Your task to perform on an android device: Clear all items from cart on amazon. Search for razer huntsman on amazon, select the first entry, add it to the cart, then select checkout. Image 0: 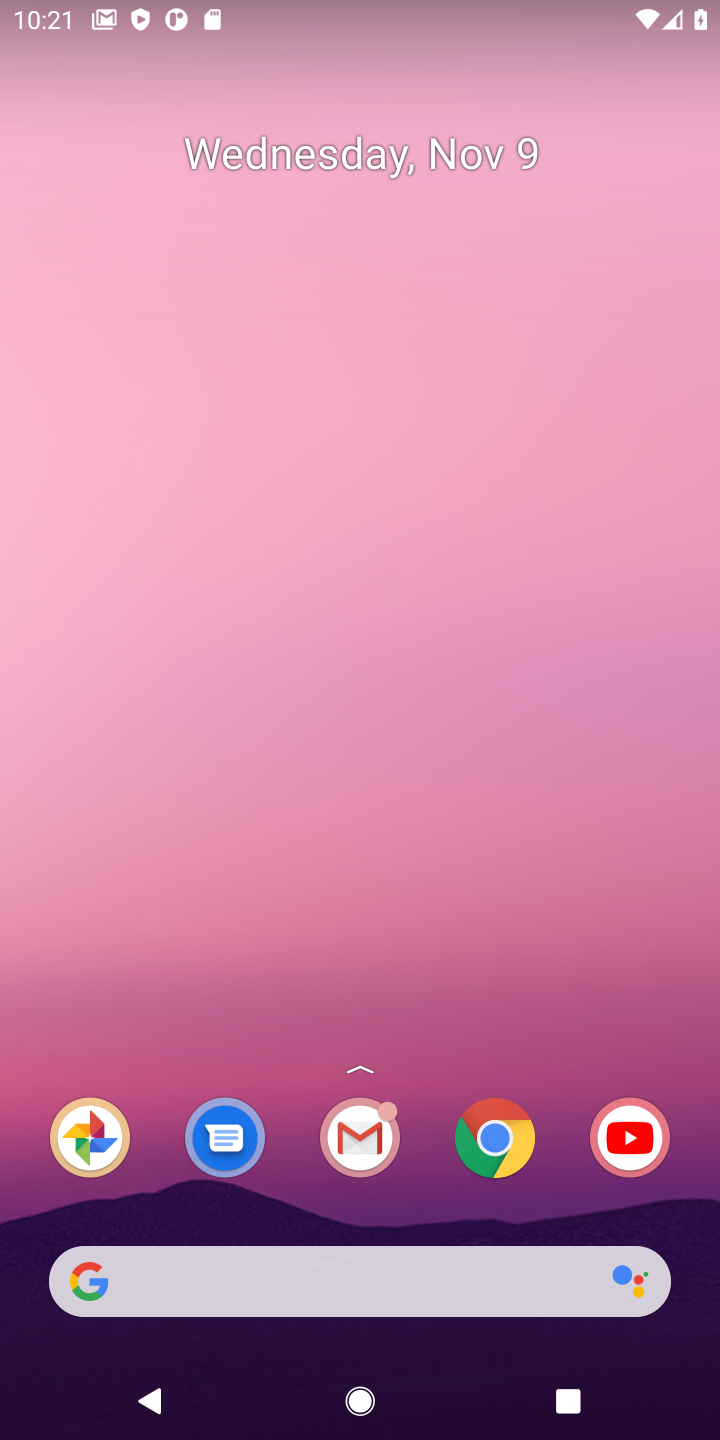
Step 0: drag from (378, 351) to (368, 31)
Your task to perform on an android device: Clear all items from cart on amazon. Search for razer huntsman on amazon, select the first entry, add it to the cart, then select checkout. Image 1: 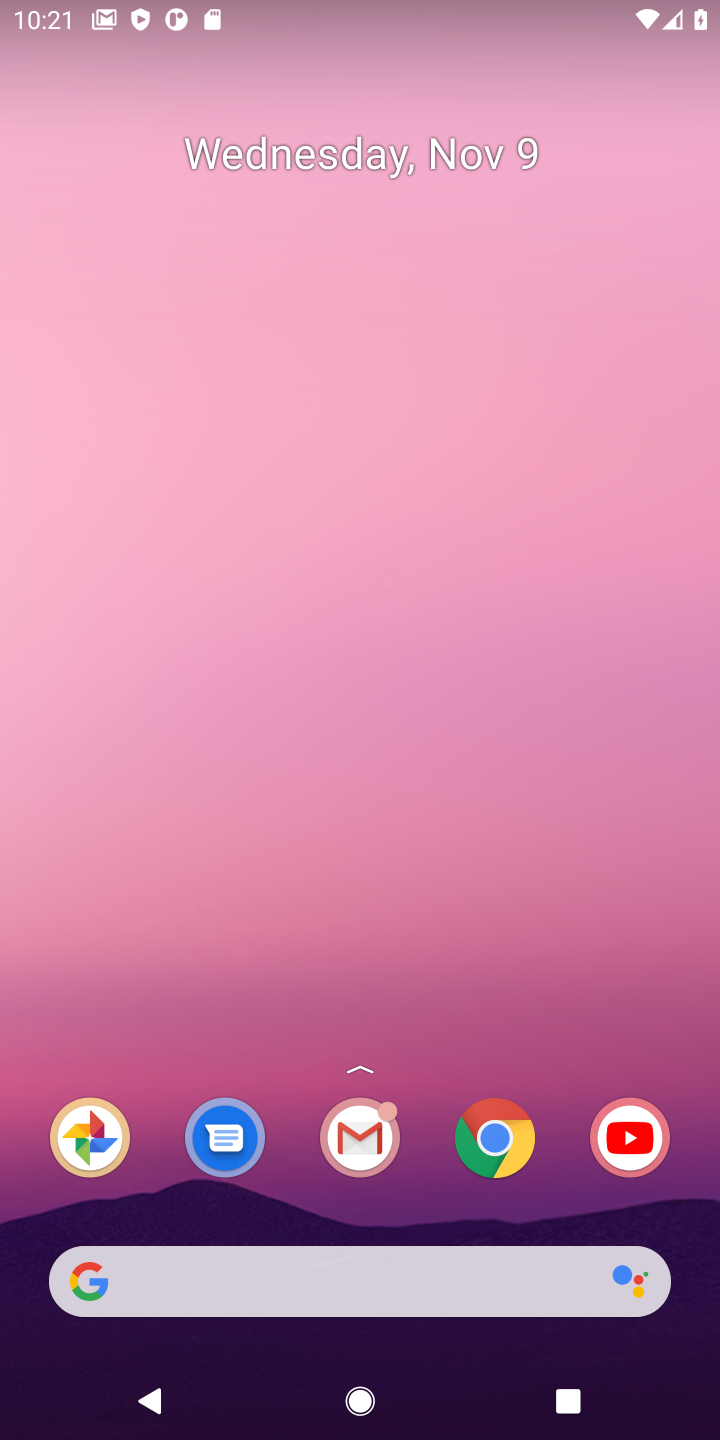
Step 1: drag from (425, 1212) to (363, 168)
Your task to perform on an android device: Clear all items from cart on amazon. Search for razer huntsman on amazon, select the first entry, add it to the cart, then select checkout. Image 2: 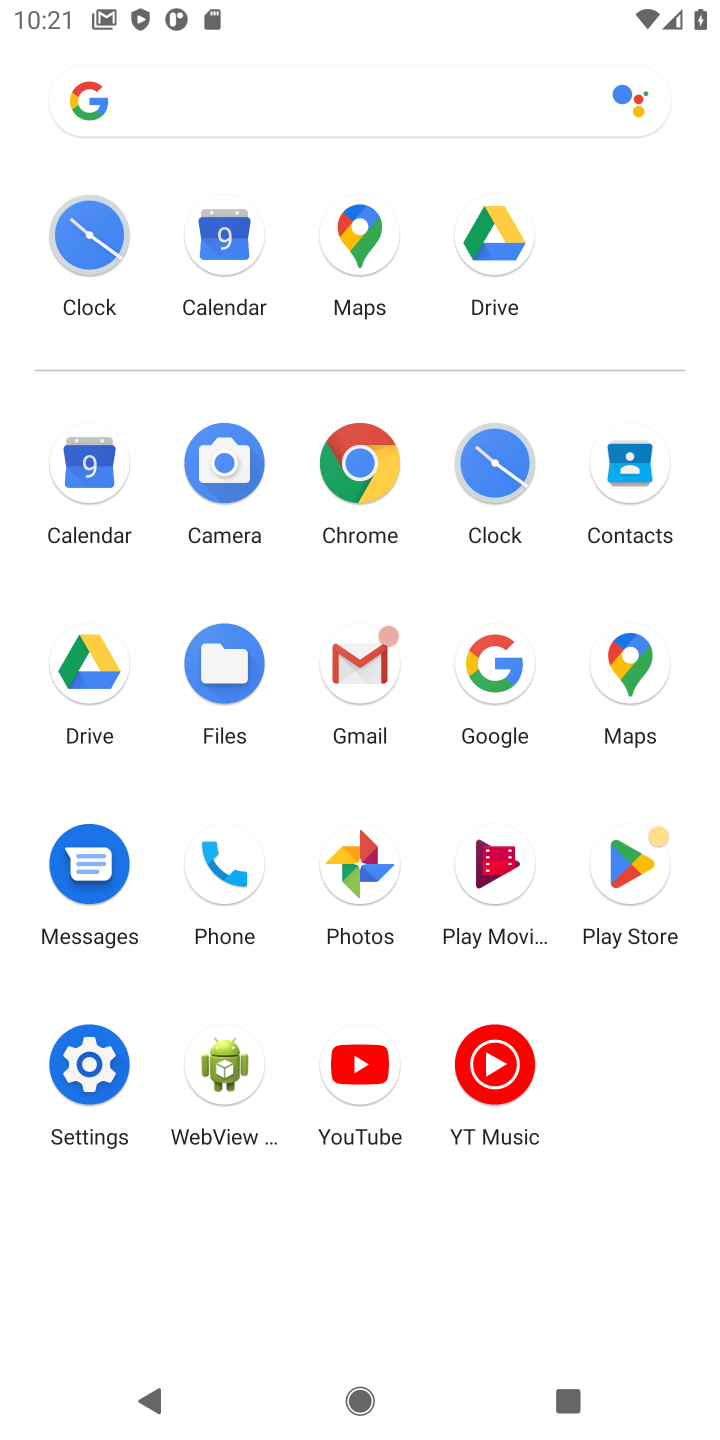
Step 2: click (359, 463)
Your task to perform on an android device: Clear all items from cart on amazon. Search for razer huntsman on amazon, select the first entry, add it to the cart, then select checkout. Image 3: 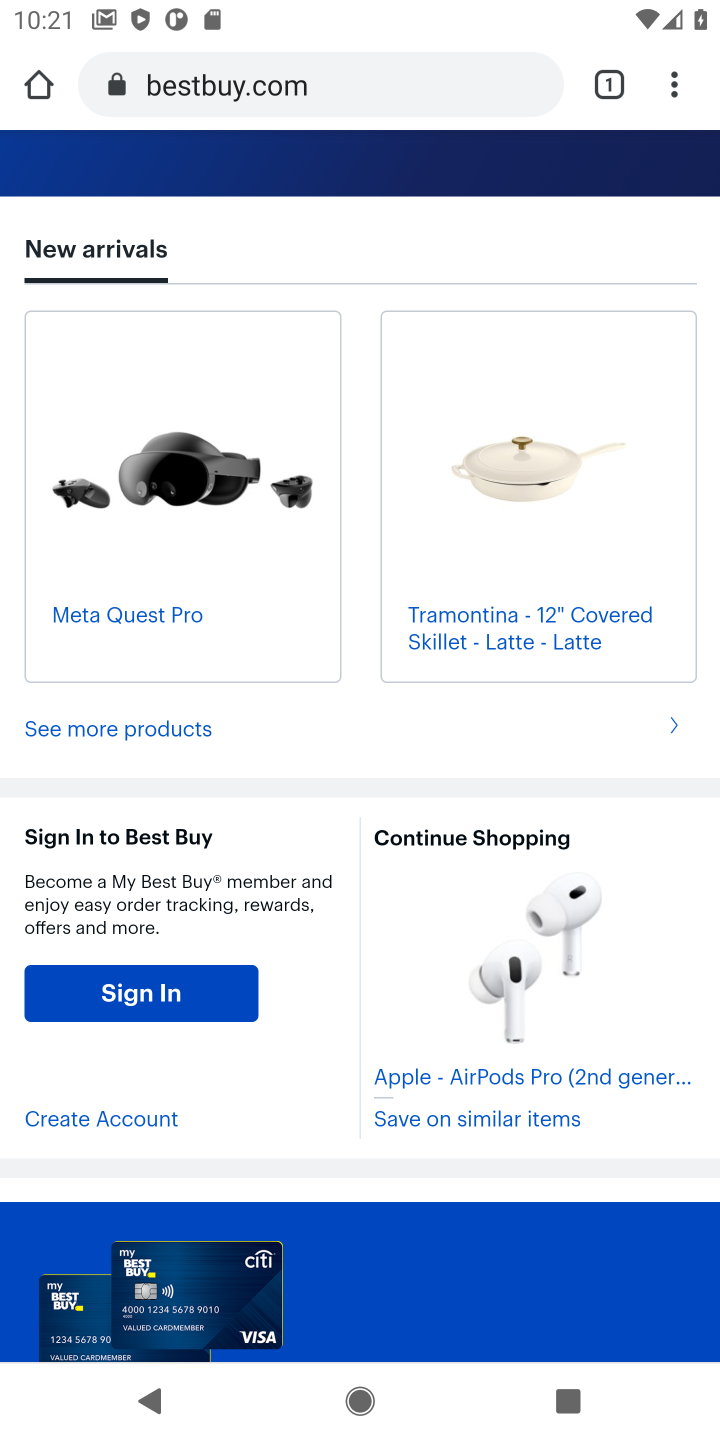
Step 3: click (411, 46)
Your task to perform on an android device: Clear all items from cart on amazon. Search for razer huntsman on amazon, select the first entry, add it to the cart, then select checkout. Image 4: 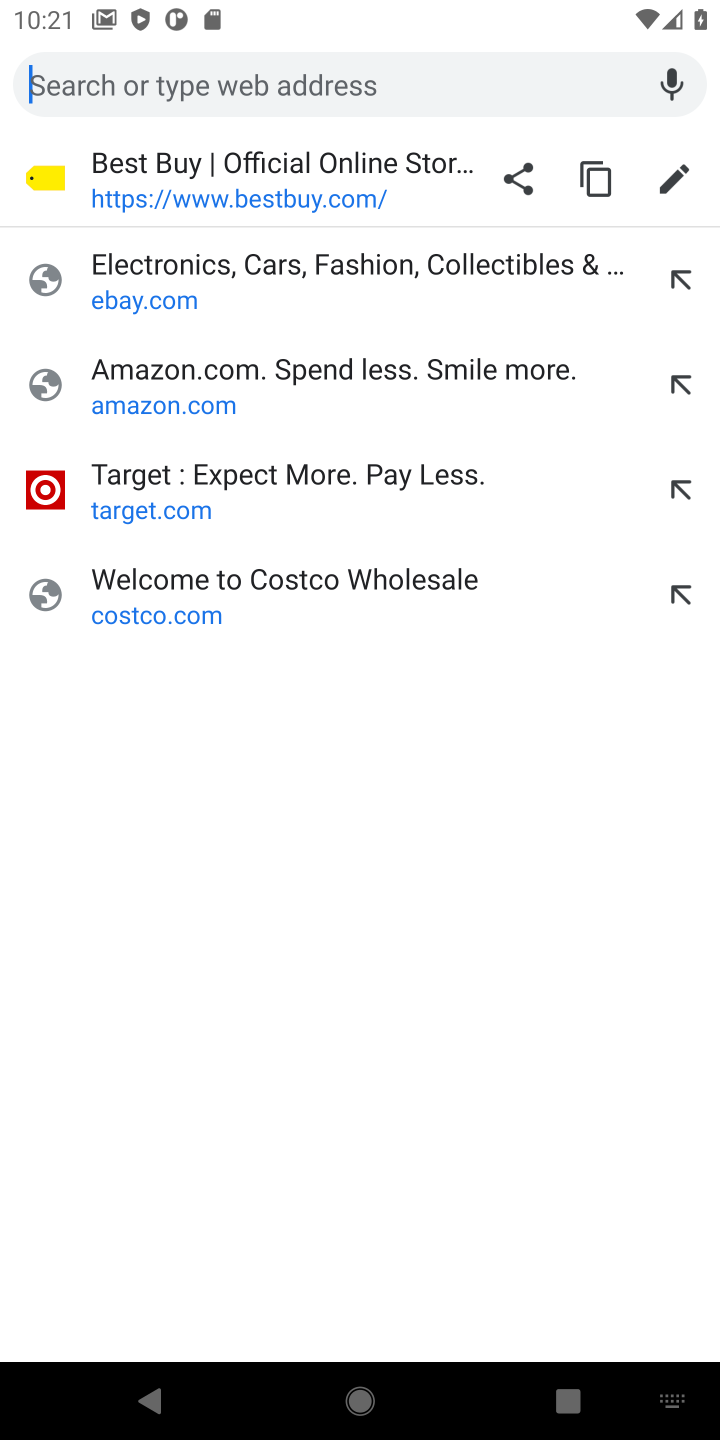
Step 4: type "amazon.com"
Your task to perform on an android device: Clear all items from cart on amazon. Search for razer huntsman on amazon, select the first entry, add it to the cart, then select checkout. Image 5: 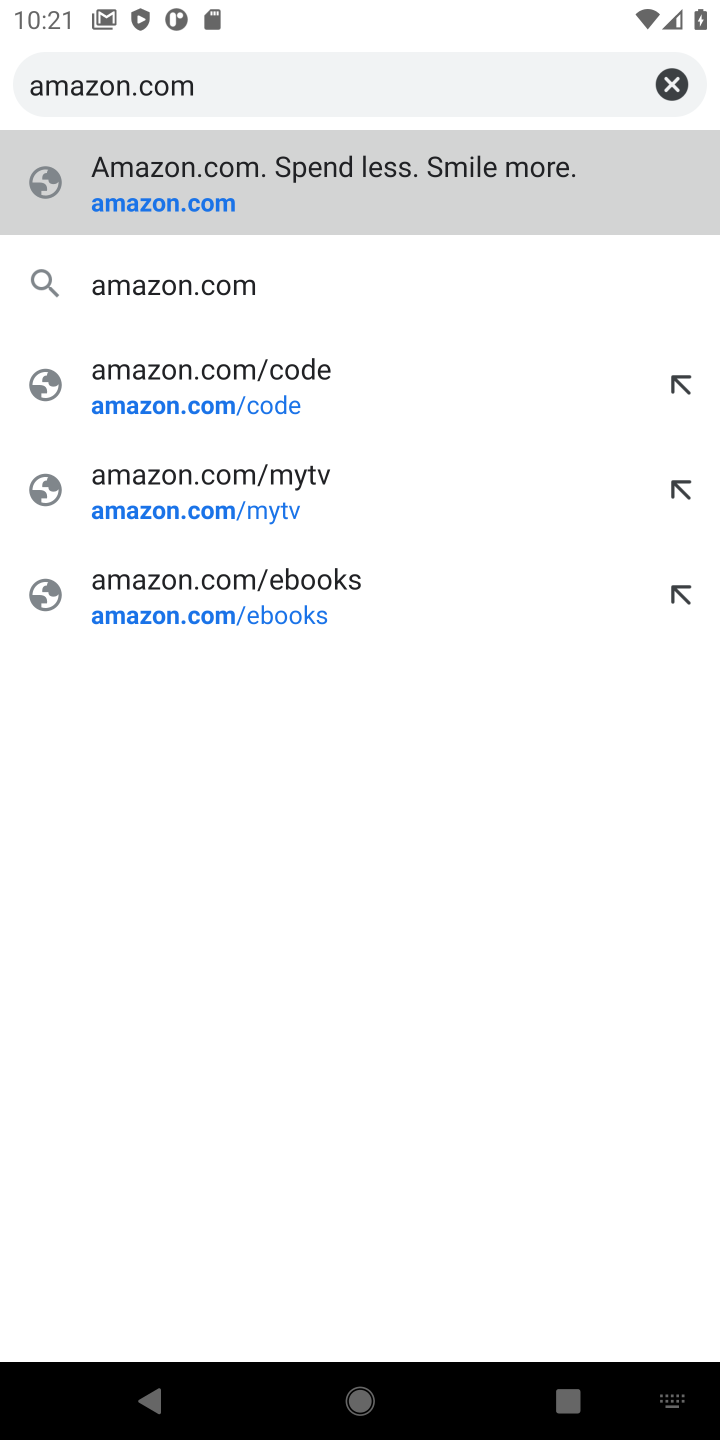
Step 5: press enter
Your task to perform on an android device: Clear all items from cart on amazon. Search for razer huntsman on amazon, select the first entry, add it to the cart, then select checkout. Image 6: 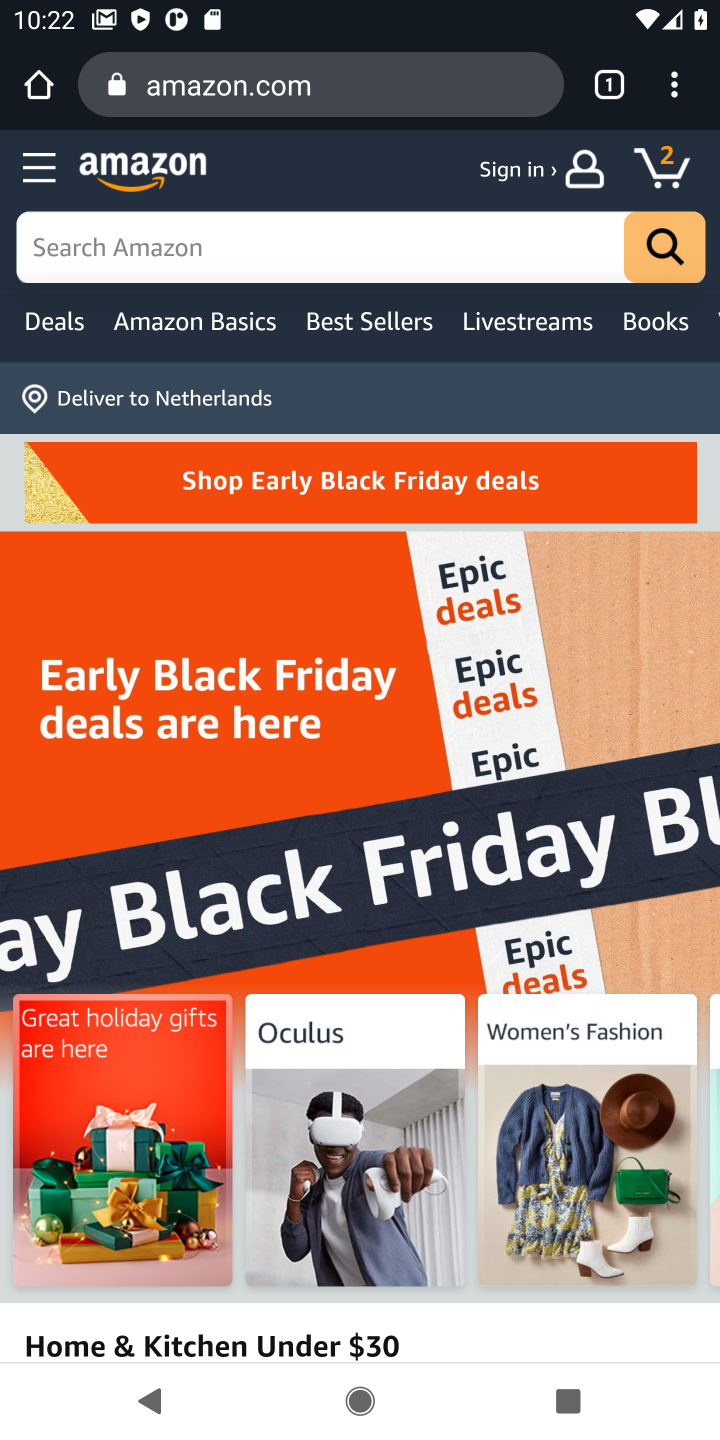
Step 6: click (655, 159)
Your task to perform on an android device: Clear all items from cart on amazon. Search for razer huntsman on amazon, select the first entry, add it to the cart, then select checkout. Image 7: 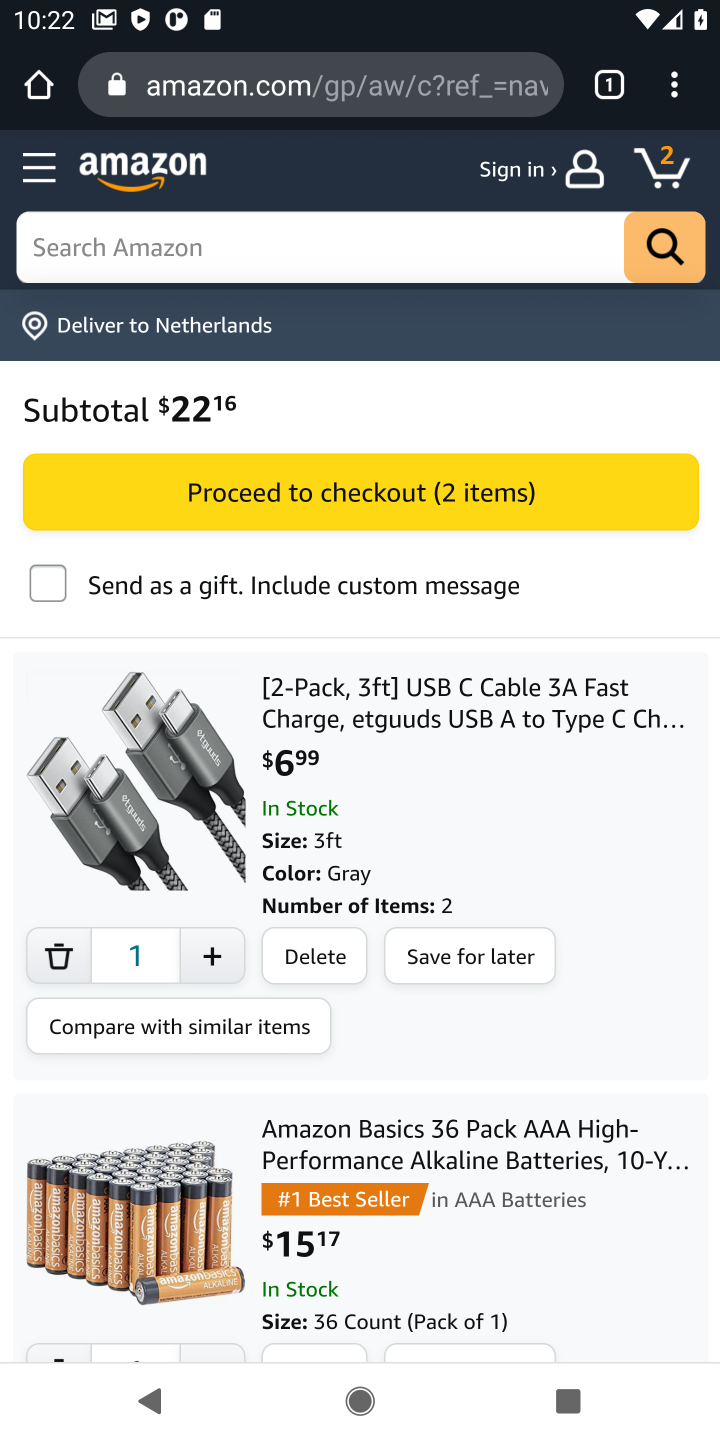
Step 7: click (57, 970)
Your task to perform on an android device: Clear all items from cart on amazon. Search for razer huntsman on amazon, select the first entry, add it to the cart, then select checkout. Image 8: 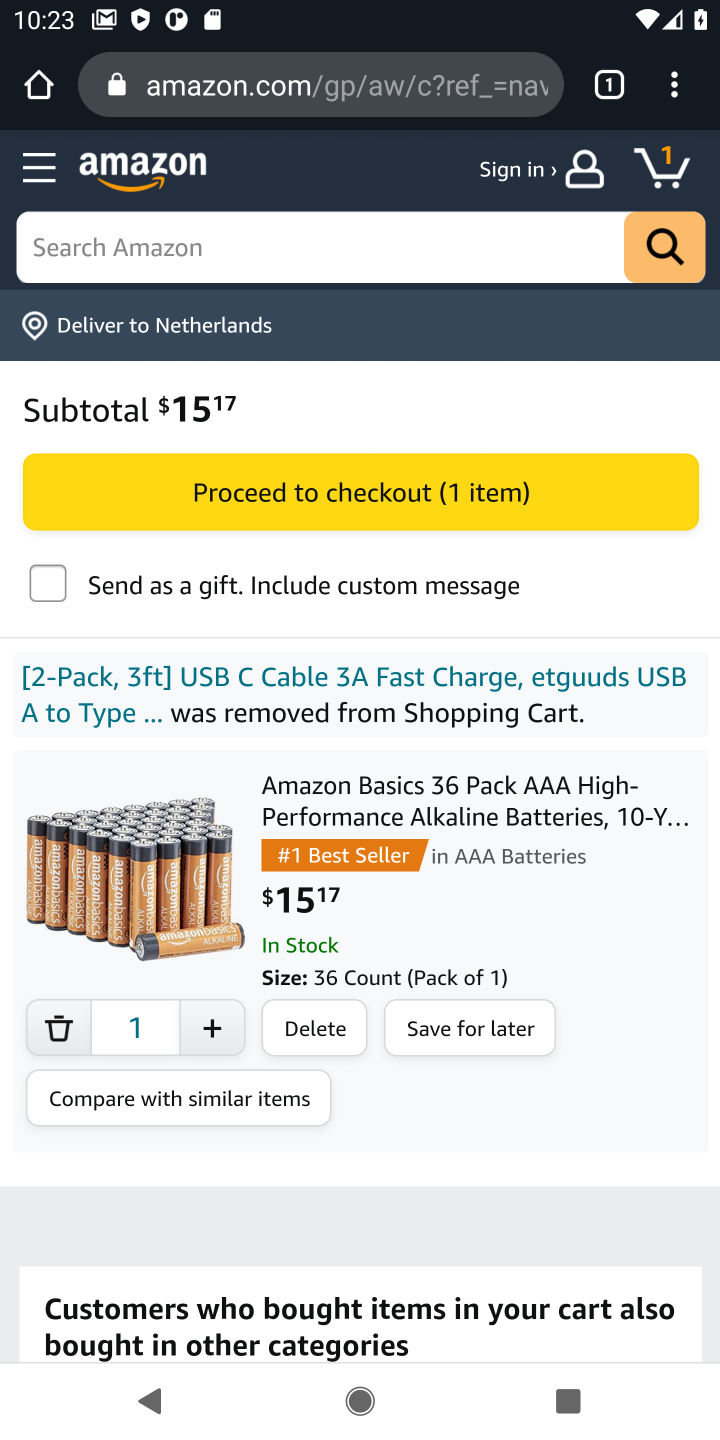
Step 8: click (69, 1029)
Your task to perform on an android device: Clear all items from cart on amazon. Search for razer huntsman on amazon, select the first entry, add it to the cart, then select checkout. Image 9: 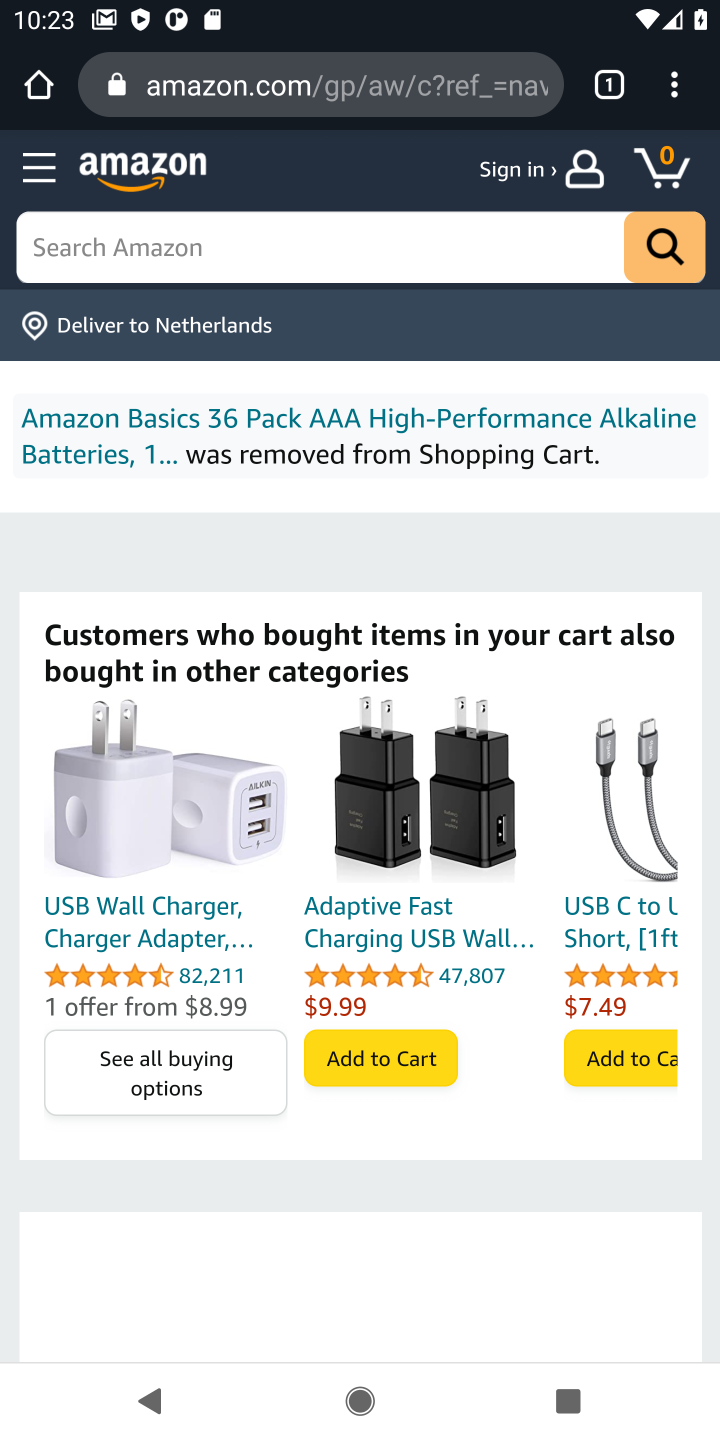
Step 9: click (266, 271)
Your task to perform on an android device: Clear all items from cart on amazon. Search for razer huntsman on amazon, select the first entry, add it to the cart, then select checkout. Image 10: 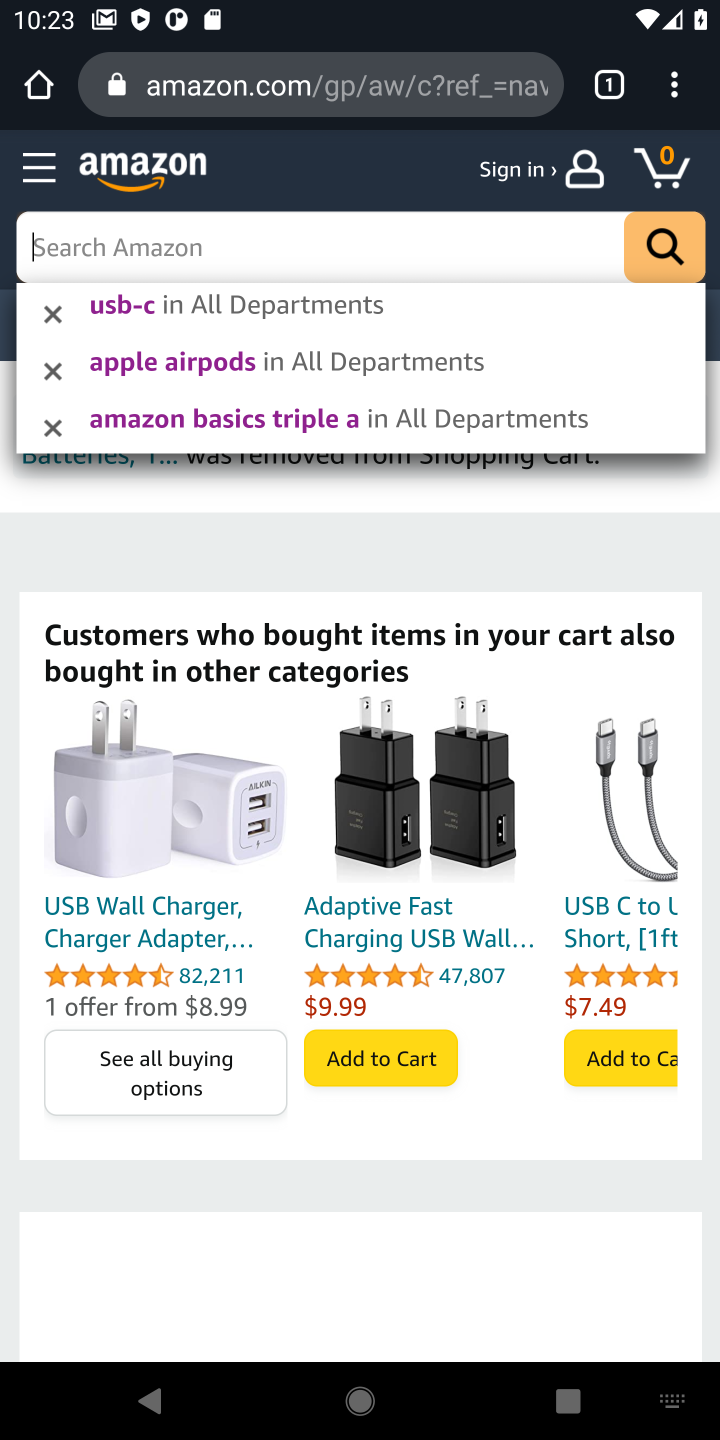
Step 10: type "razer huntsman"
Your task to perform on an android device: Clear all items from cart on amazon. Search for razer huntsman on amazon, select the first entry, add it to the cart, then select checkout. Image 11: 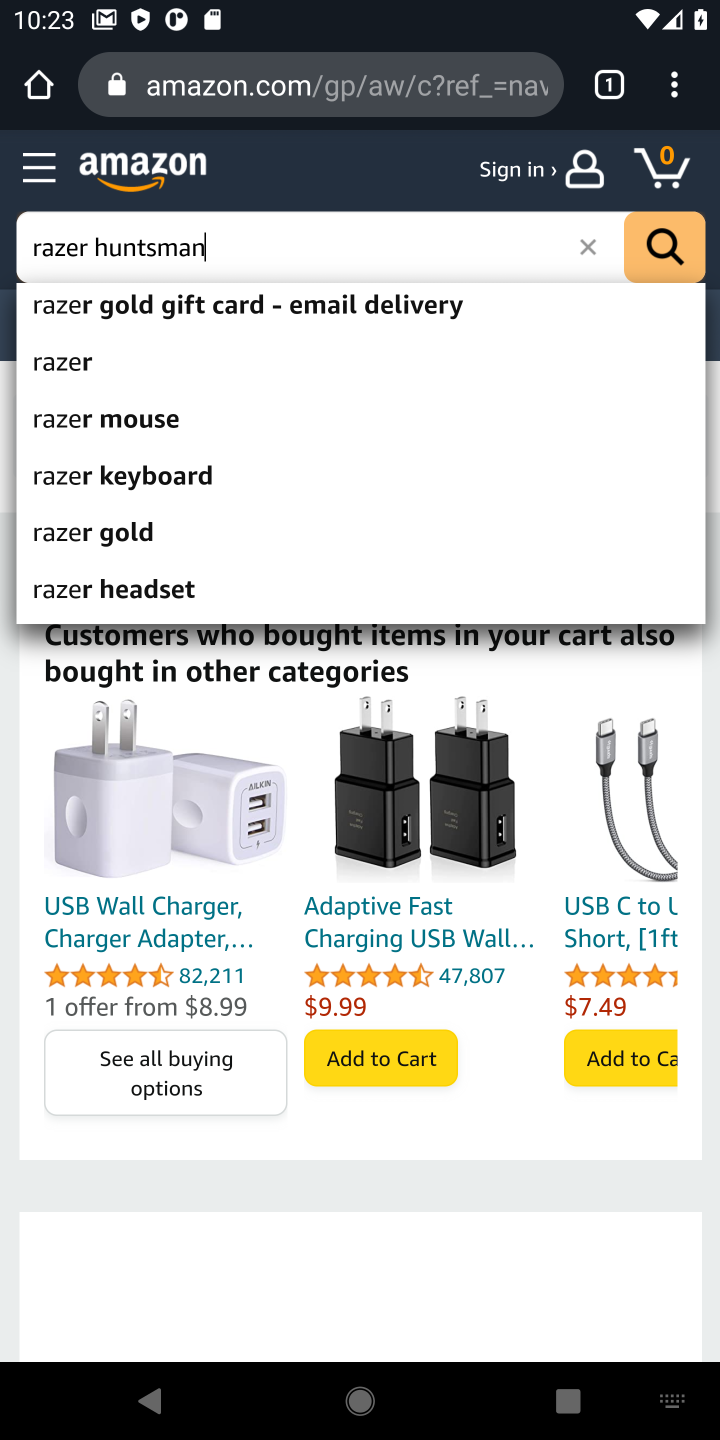
Step 11: press enter
Your task to perform on an android device: Clear all items from cart on amazon. Search for razer huntsman on amazon, select the first entry, add it to the cart, then select checkout. Image 12: 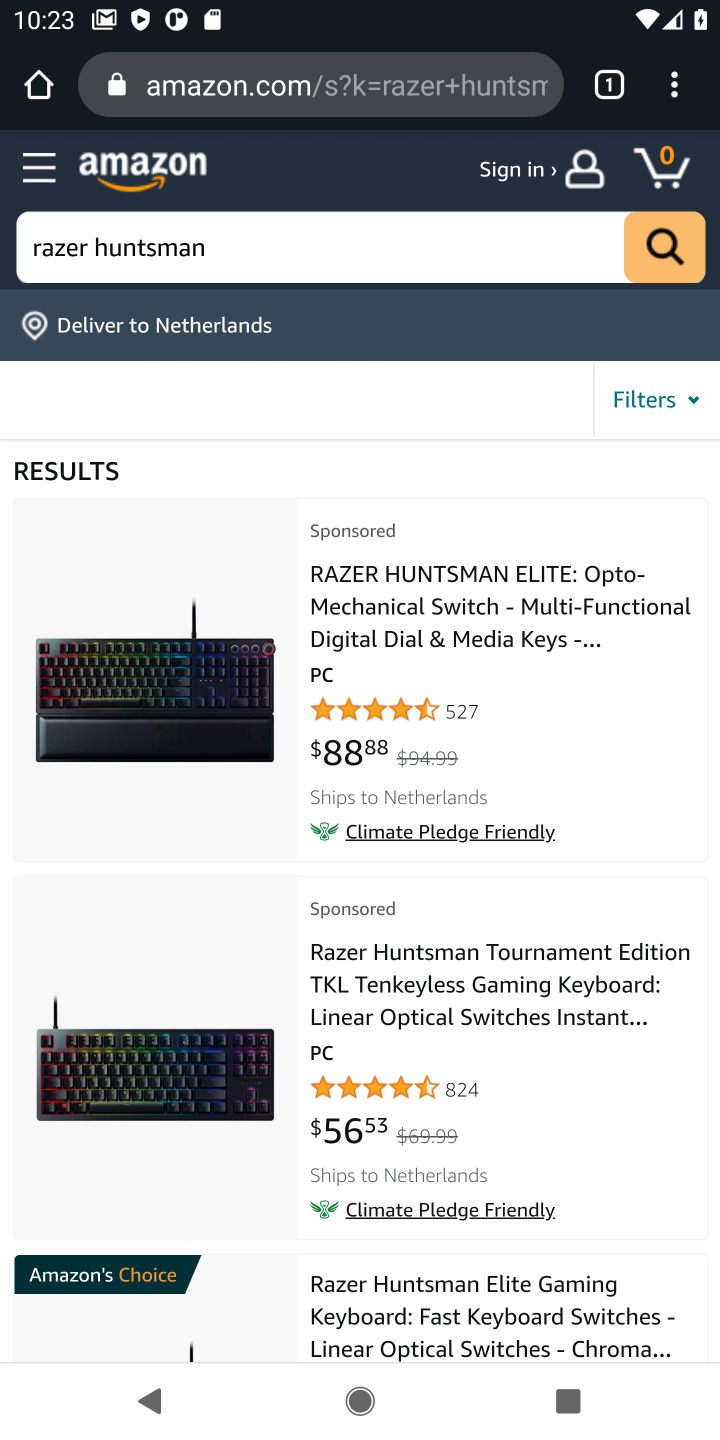
Step 12: drag from (402, 1282) to (396, 534)
Your task to perform on an android device: Clear all items from cart on amazon. Search for razer huntsman on amazon, select the first entry, add it to the cart, then select checkout. Image 13: 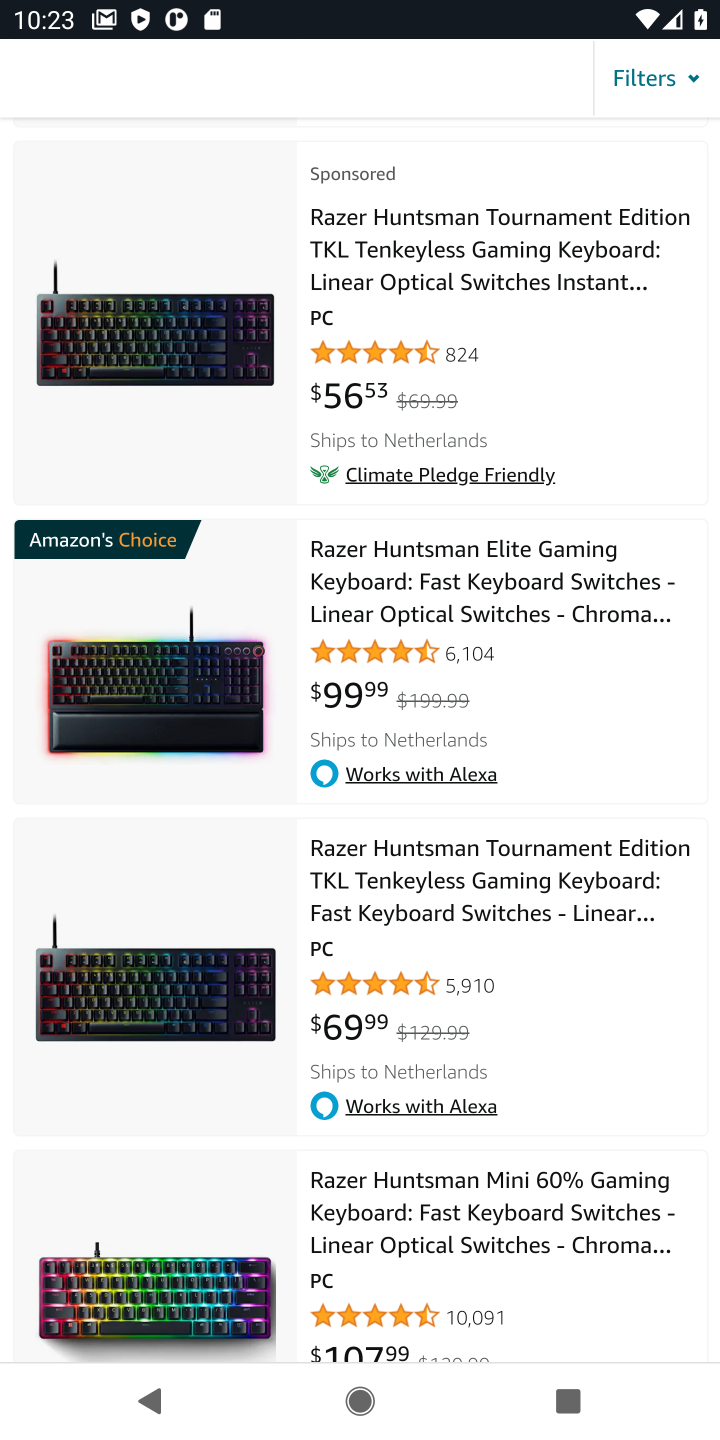
Step 13: click (423, 908)
Your task to perform on an android device: Clear all items from cart on amazon. Search for razer huntsman on amazon, select the first entry, add it to the cart, then select checkout. Image 14: 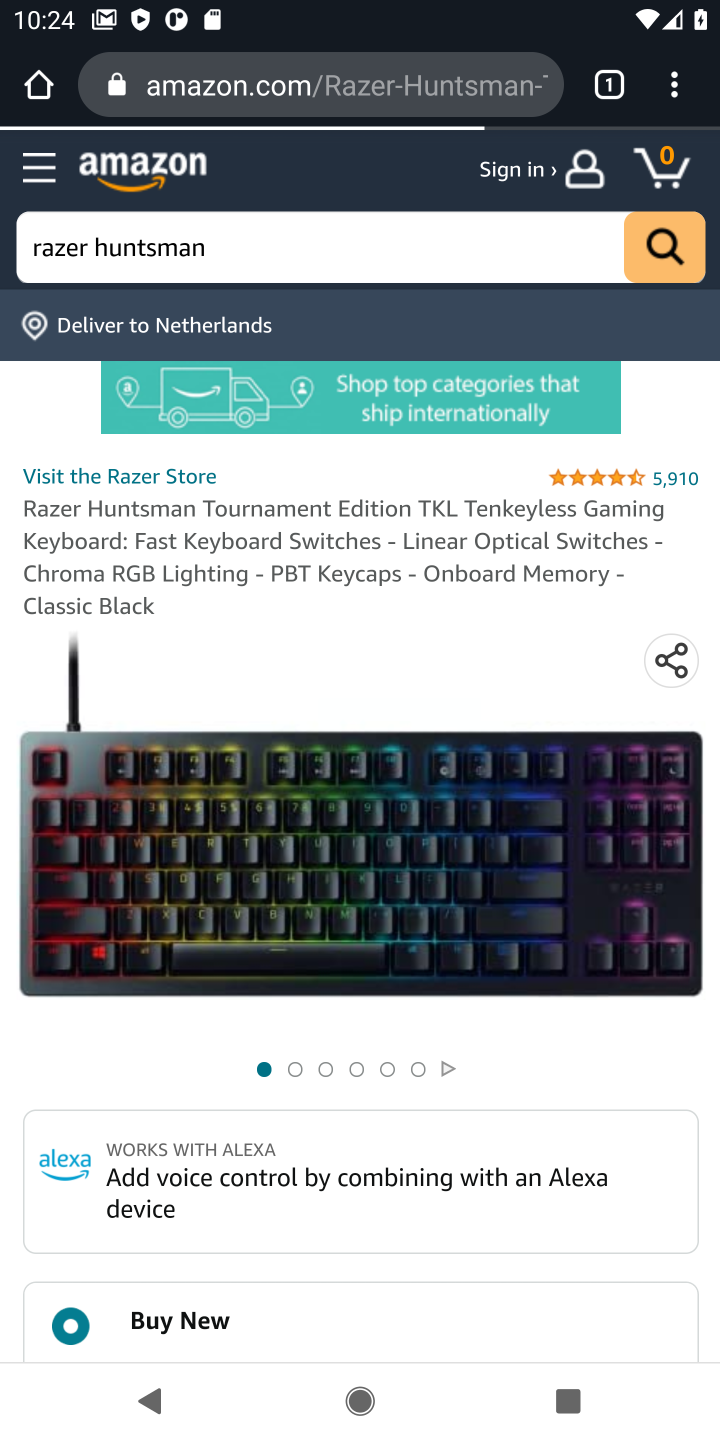
Step 14: drag from (559, 869) to (555, 363)
Your task to perform on an android device: Clear all items from cart on amazon. Search for razer huntsman on amazon, select the first entry, add it to the cart, then select checkout. Image 15: 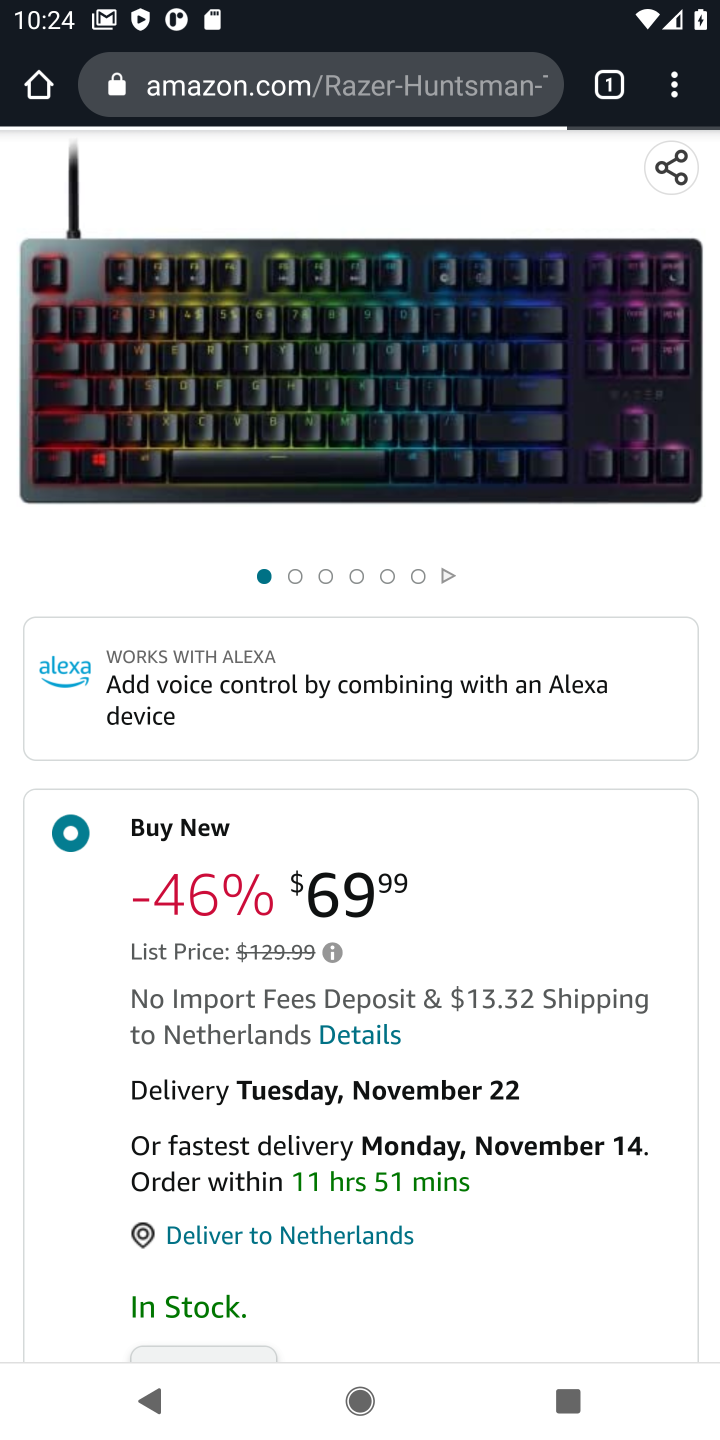
Step 15: drag from (472, 918) to (458, 234)
Your task to perform on an android device: Clear all items from cart on amazon. Search for razer huntsman on amazon, select the first entry, add it to the cart, then select checkout. Image 16: 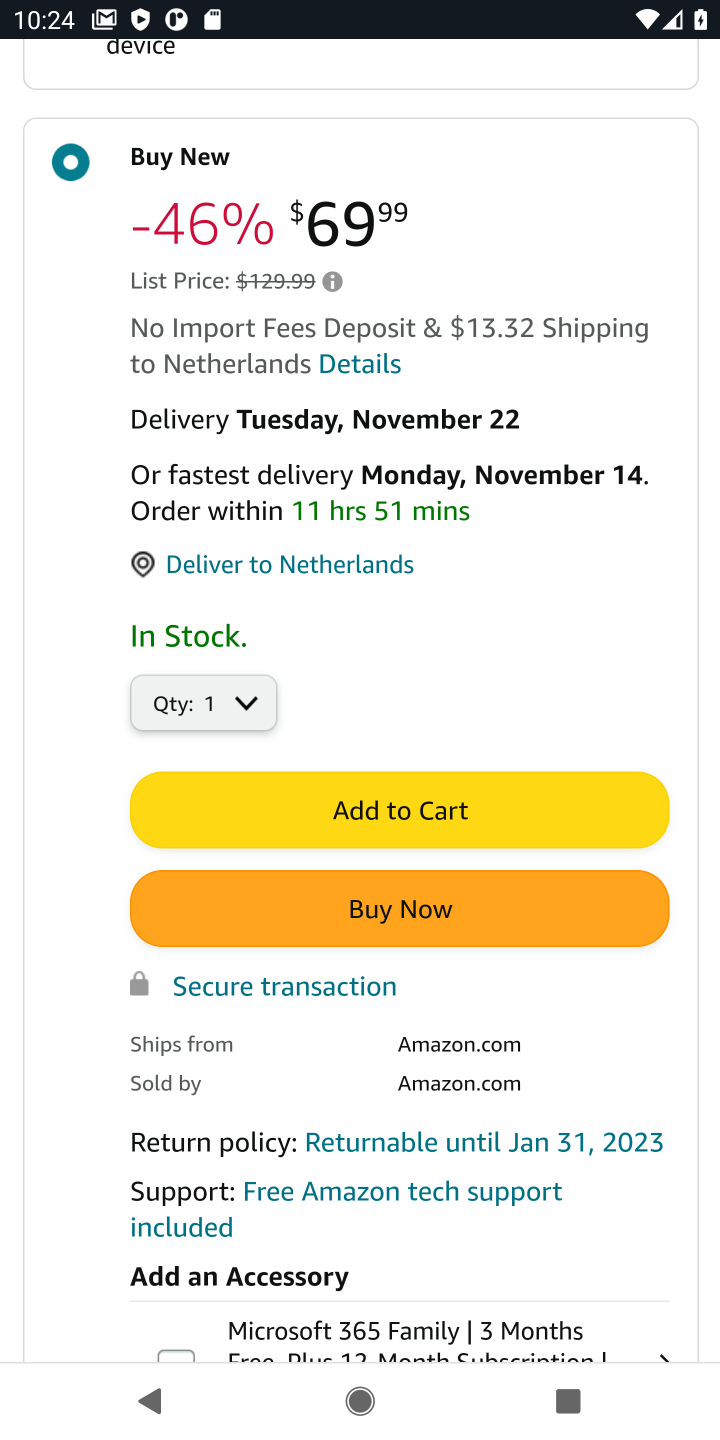
Step 16: click (517, 812)
Your task to perform on an android device: Clear all items from cart on amazon. Search for razer huntsman on amazon, select the first entry, add it to the cart, then select checkout. Image 17: 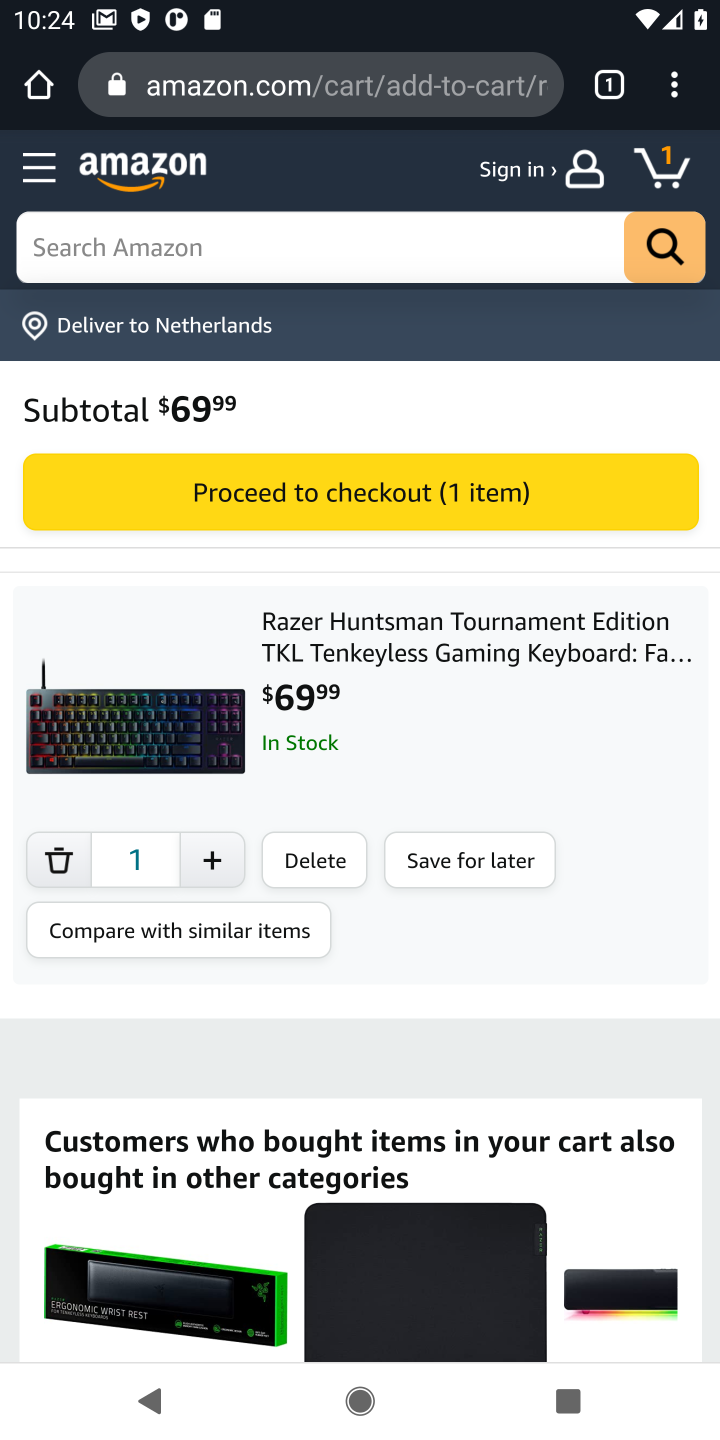
Step 17: click (423, 510)
Your task to perform on an android device: Clear all items from cart on amazon. Search for razer huntsman on amazon, select the first entry, add it to the cart, then select checkout. Image 18: 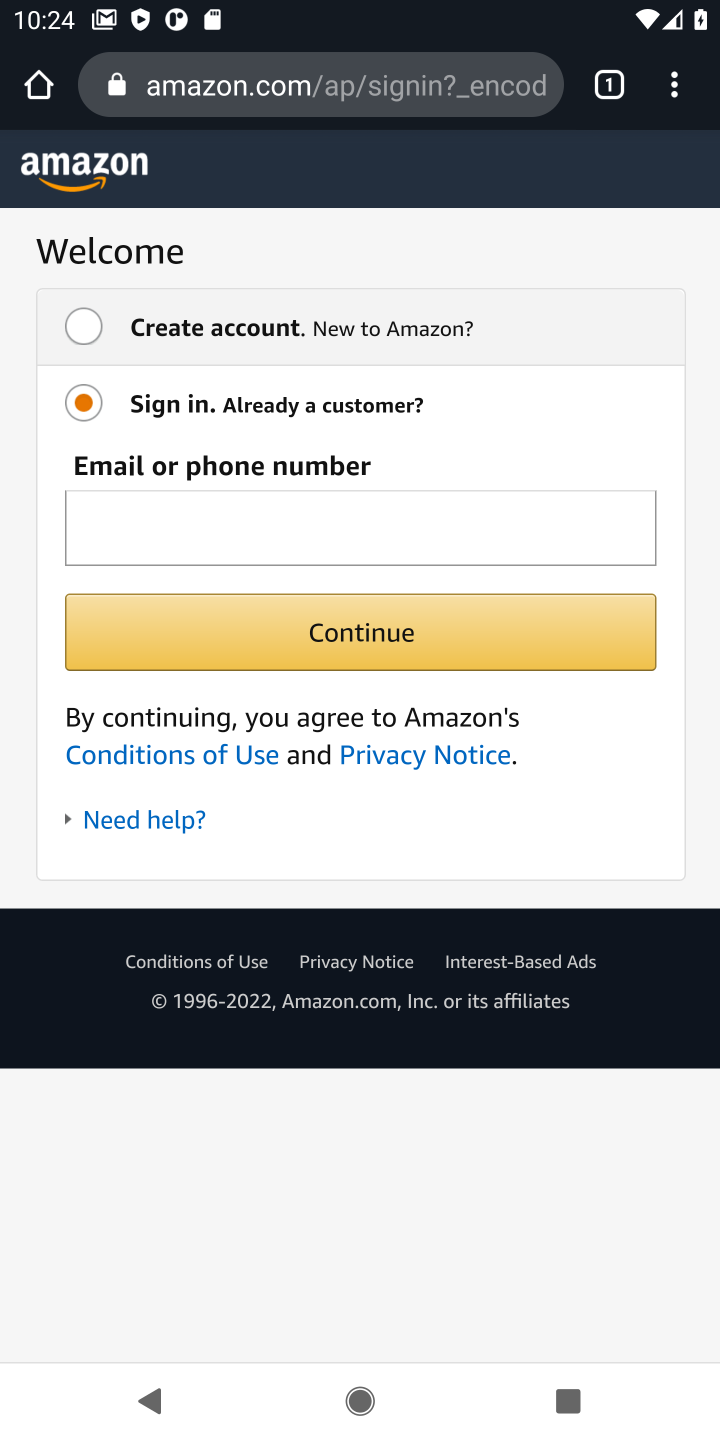
Step 18: task complete